Your task to perform on an android device: Clear all items from cart on bestbuy. Add jbl charge 4 to the cart on bestbuy Image 0: 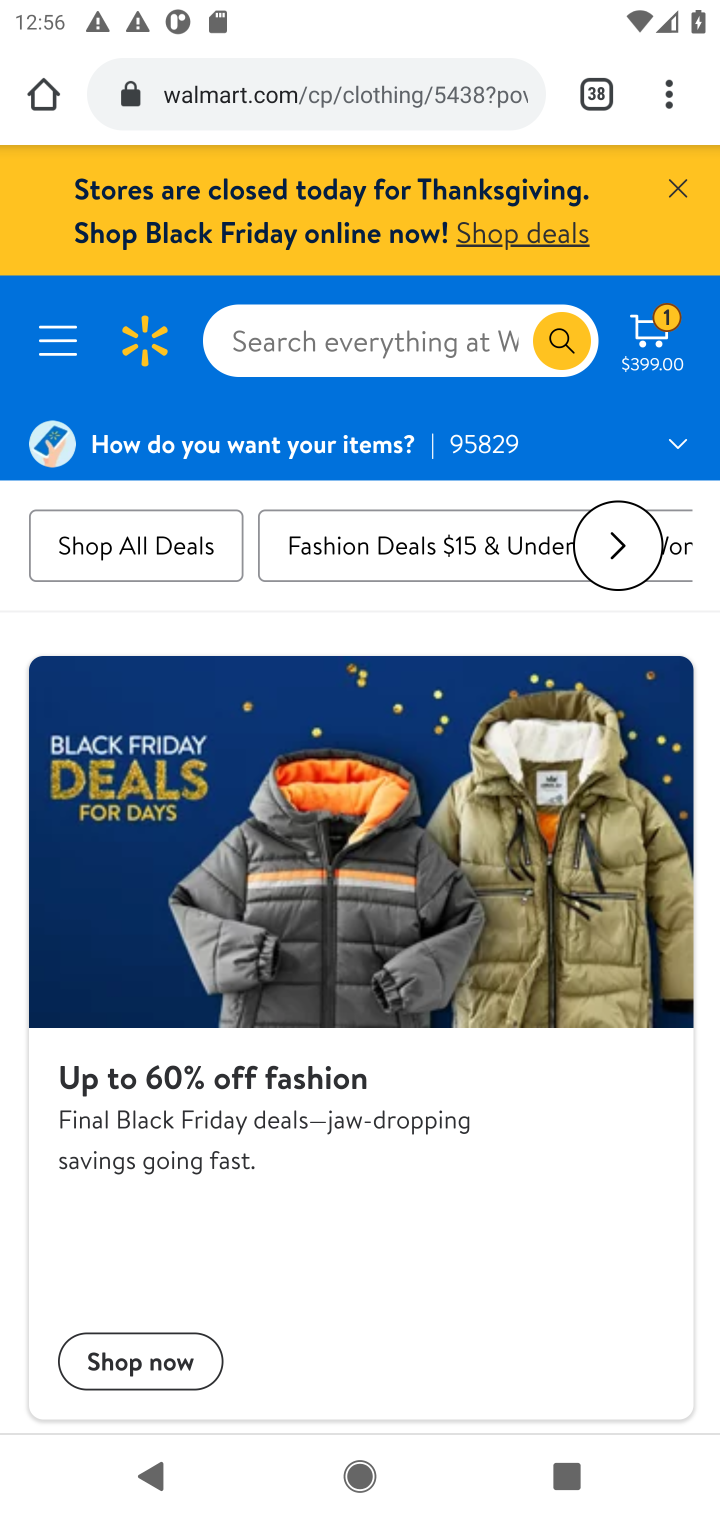
Step 0: task complete